Your task to perform on an android device: Open Youtube and go to the subscriptions tab Image 0: 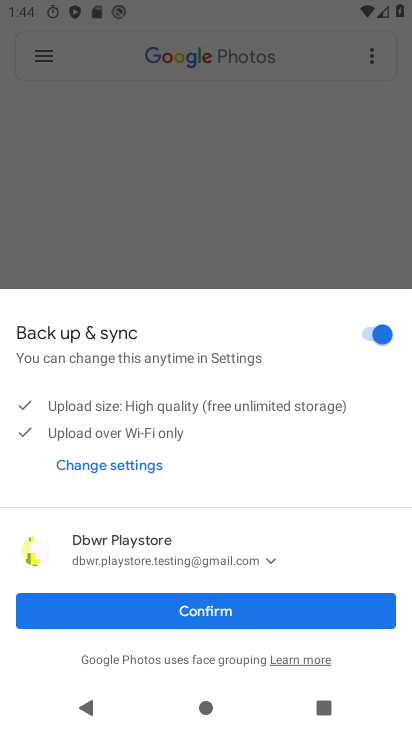
Step 0: press home button
Your task to perform on an android device: Open Youtube and go to the subscriptions tab Image 1: 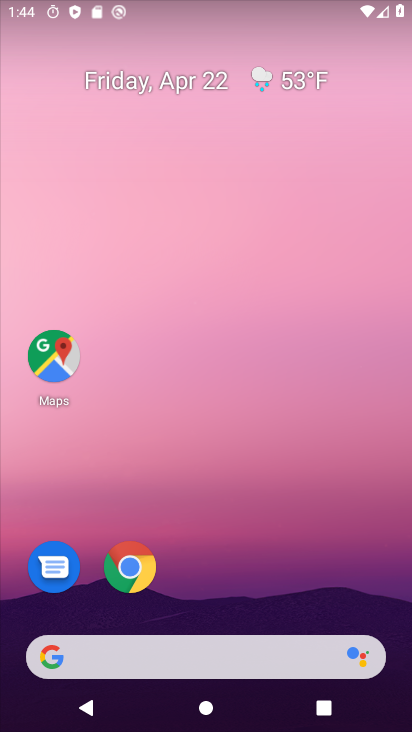
Step 1: drag from (310, 592) to (290, 56)
Your task to perform on an android device: Open Youtube and go to the subscriptions tab Image 2: 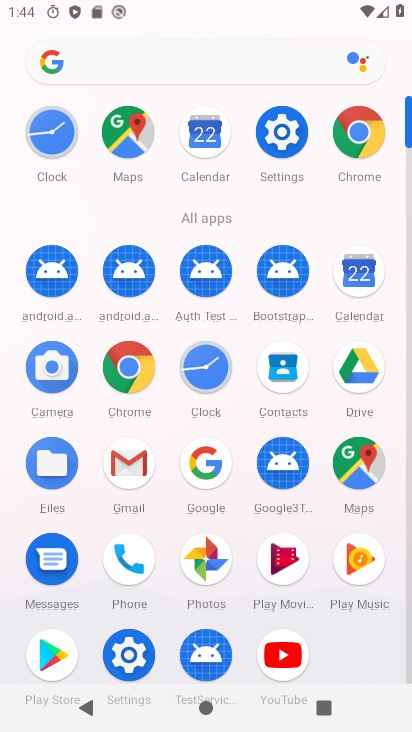
Step 2: click (295, 656)
Your task to perform on an android device: Open Youtube and go to the subscriptions tab Image 3: 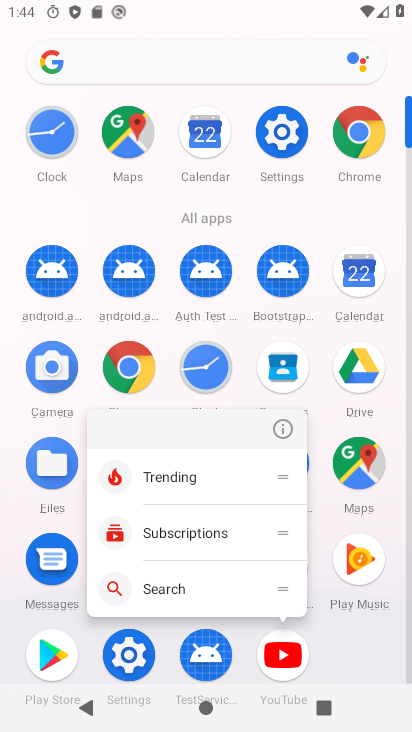
Step 3: click (289, 648)
Your task to perform on an android device: Open Youtube and go to the subscriptions tab Image 4: 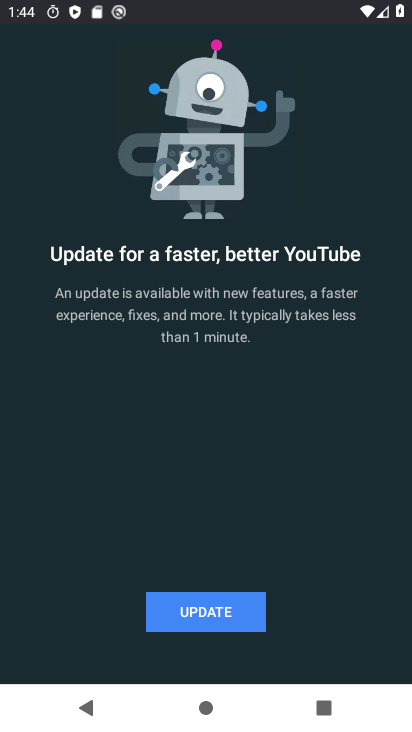
Step 4: click (247, 616)
Your task to perform on an android device: Open Youtube and go to the subscriptions tab Image 5: 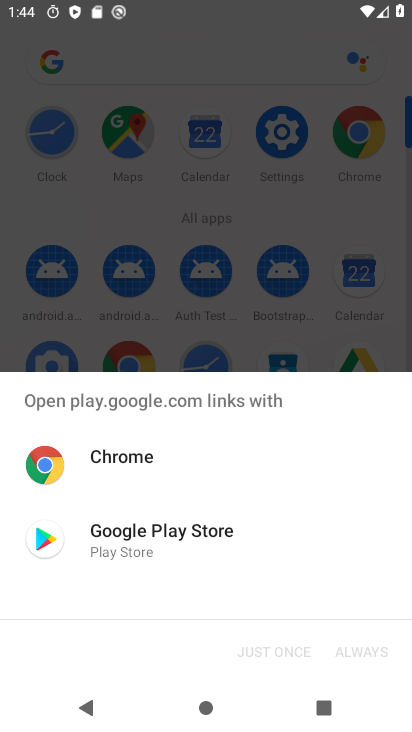
Step 5: click (220, 550)
Your task to perform on an android device: Open Youtube and go to the subscriptions tab Image 6: 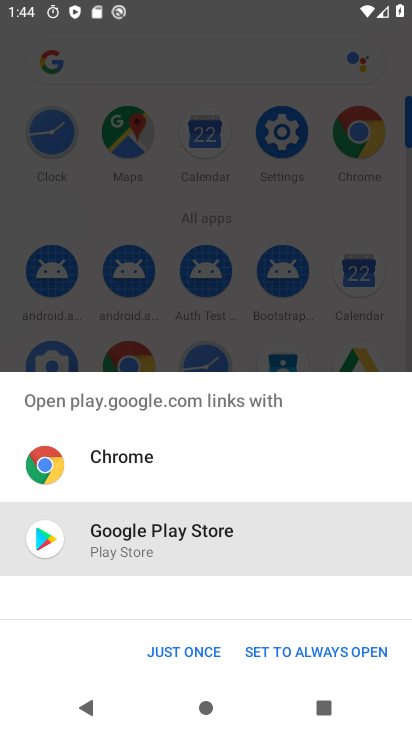
Step 6: click (212, 644)
Your task to perform on an android device: Open Youtube and go to the subscriptions tab Image 7: 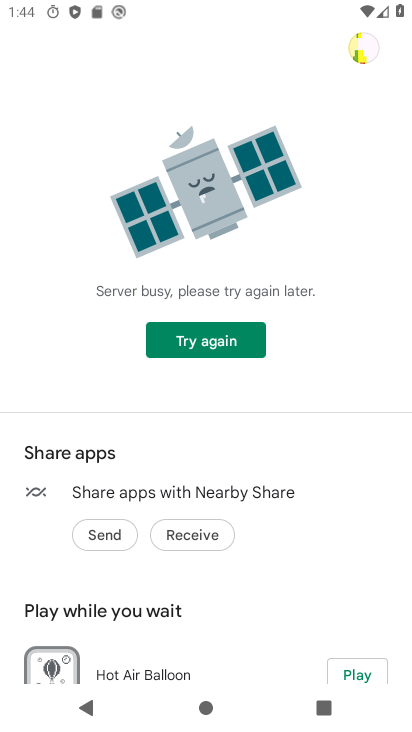
Step 7: click (224, 339)
Your task to perform on an android device: Open Youtube and go to the subscriptions tab Image 8: 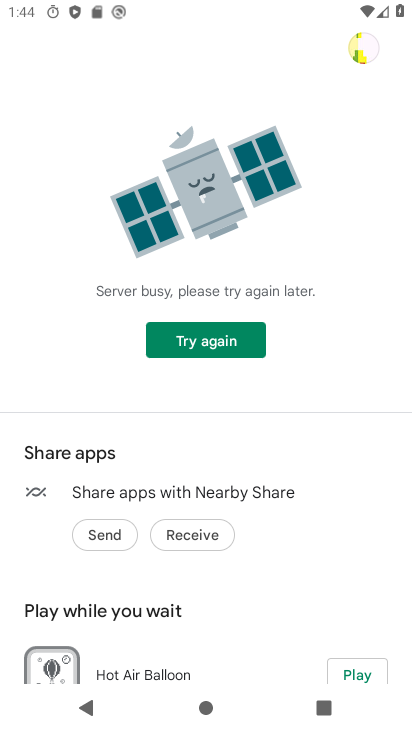
Step 8: click (224, 340)
Your task to perform on an android device: Open Youtube and go to the subscriptions tab Image 9: 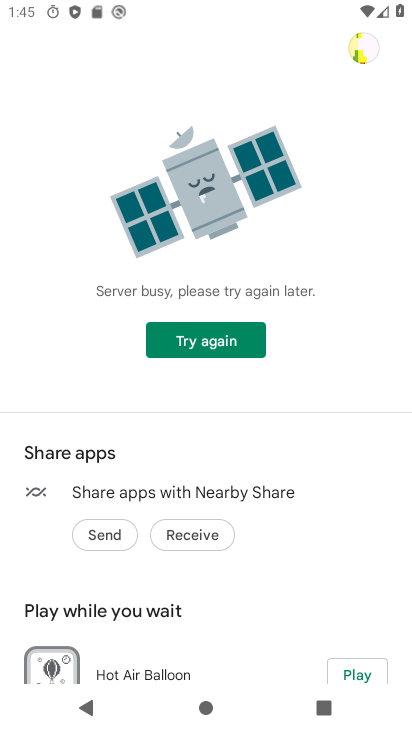
Step 9: task complete